Your task to perform on an android device: Open Wikipedia Image 0: 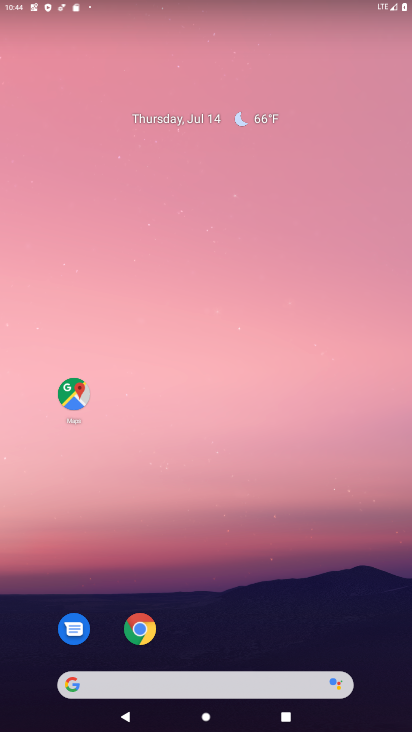
Step 0: press home button
Your task to perform on an android device: Open Wikipedia Image 1: 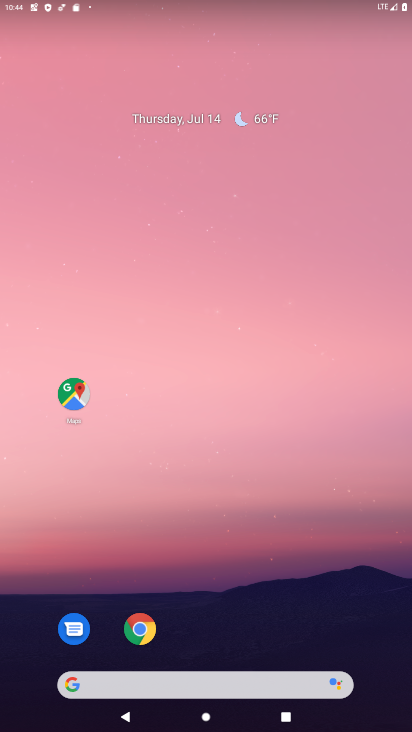
Step 1: click (78, 687)
Your task to perform on an android device: Open Wikipedia Image 2: 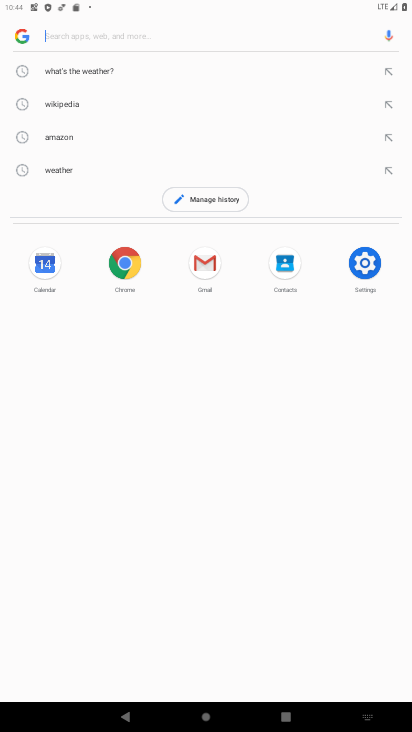
Step 2: click (52, 100)
Your task to perform on an android device: Open Wikipedia Image 3: 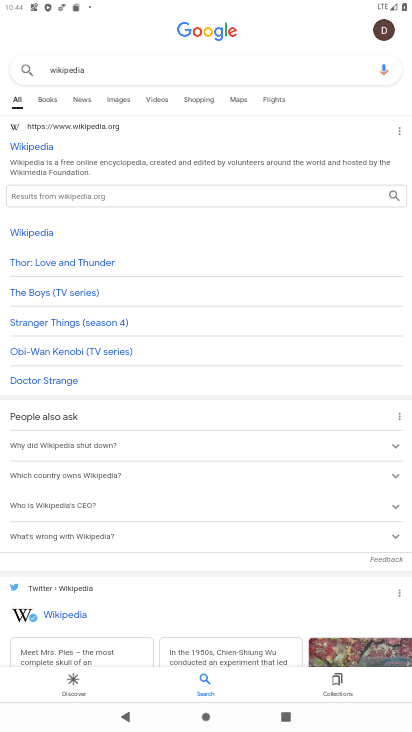
Step 3: click (28, 145)
Your task to perform on an android device: Open Wikipedia Image 4: 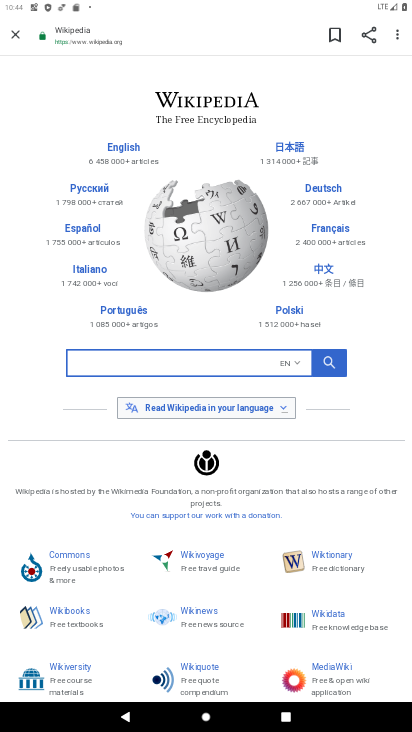
Step 4: task complete